Your task to perform on an android device: Go to sound settings Image 0: 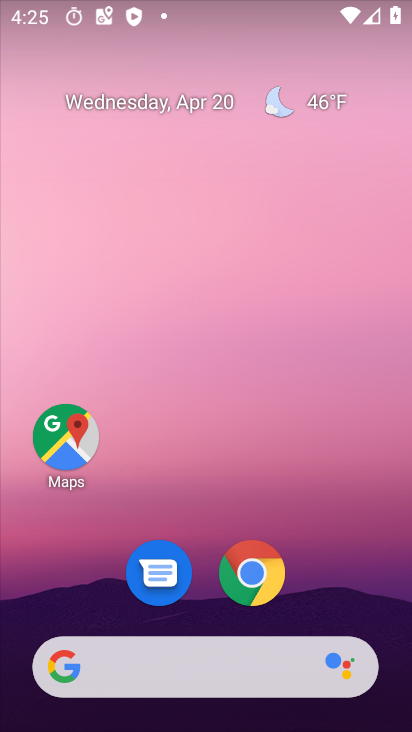
Step 0: drag from (369, 375) to (342, 193)
Your task to perform on an android device: Go to sound settings Image 1: 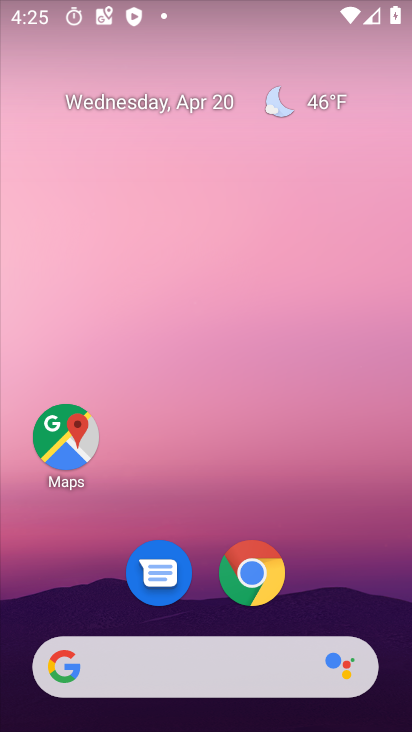
Step 1: click (322, 146)
Your task to perform on an android device: Go to sound settings Image 2: 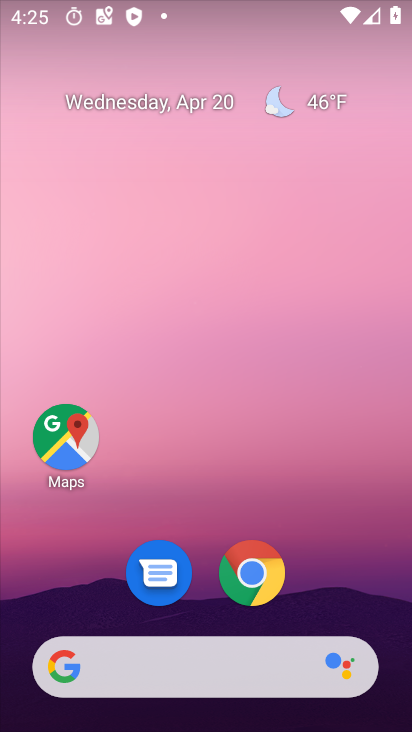
Step 2: click (294, 23)
Your task to perform on an android device: Go to sound settings Image 3: 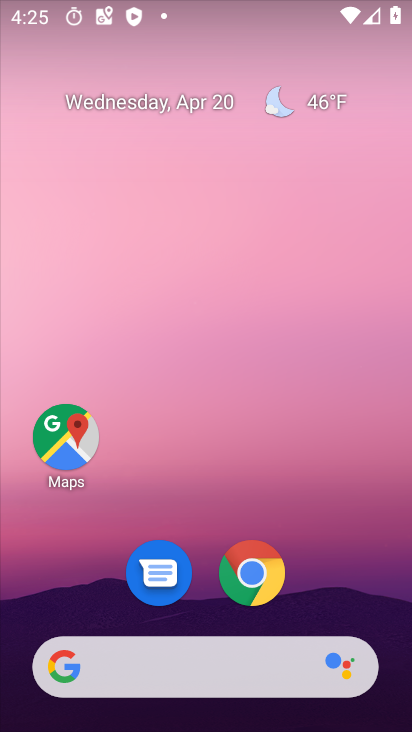
Step 3: drag from (342, 178) to (331, 132)
Your task to perform on an android device: Go to sound settings Image 4: 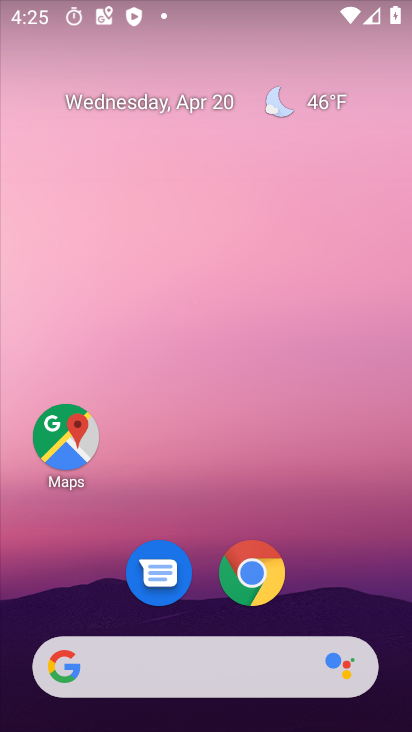
Step 4: drag from (385, 188) to (361, 62)
Your task to perform on an android device: Go to sound settings Image 5: 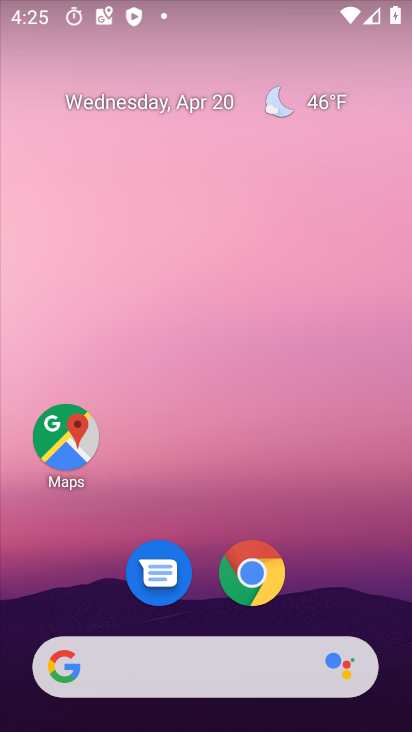
Step 5: drag from (313, 282) to (275, 131)
Your task to perform on an android device: Go to sound settings Image 6: 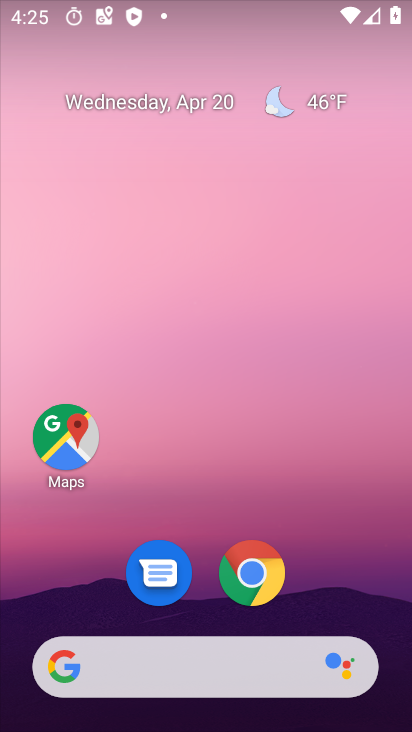
Step 6: drag from (317, 197) to (292, 99)
Your task to perform on an android device: Go to sound settings Image 7: 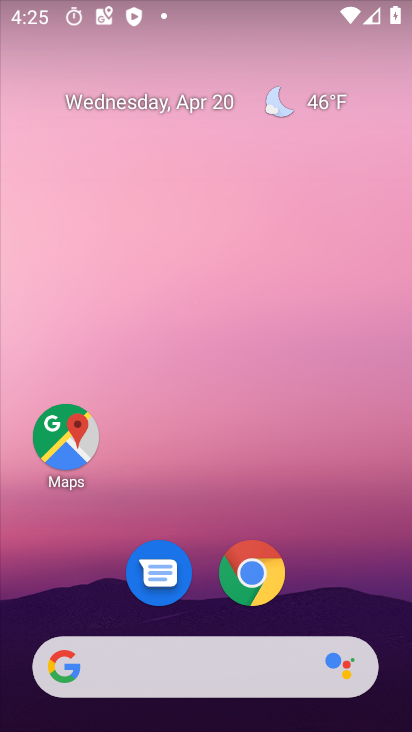
Step 7: drag from (356, 397) to (306, 209)
Your task to perform on an android device: Go to sound settings Image 8: 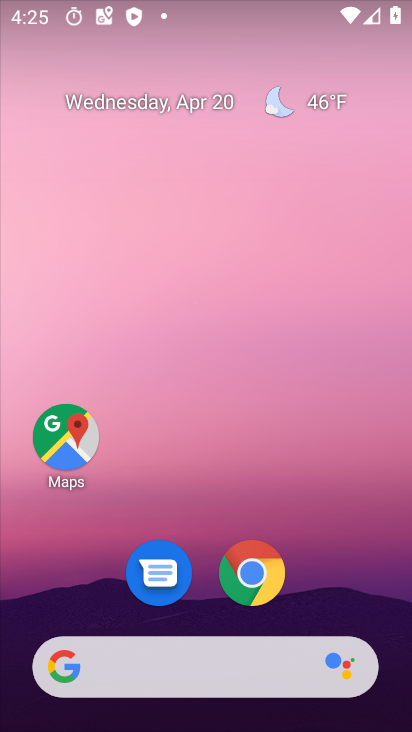
Step 8: drag from (334, 239) to (322, 157)
Your task to perform on an android device: Go to sound settings Image 9: 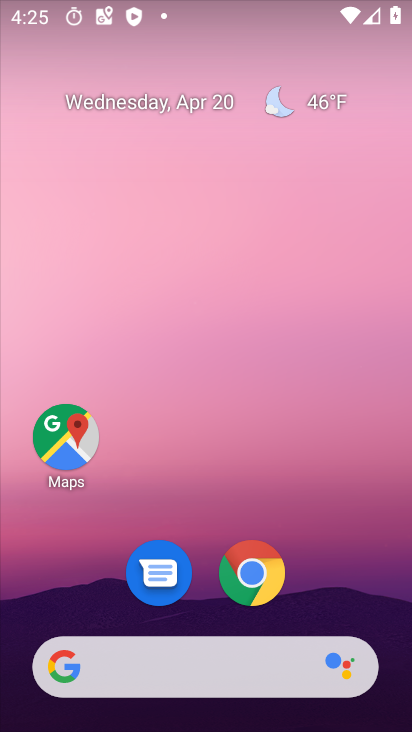
Step 9: drag from (399, 586) to (337, 42)
Your task to perform on an android device: Go to sound settings Image 10: 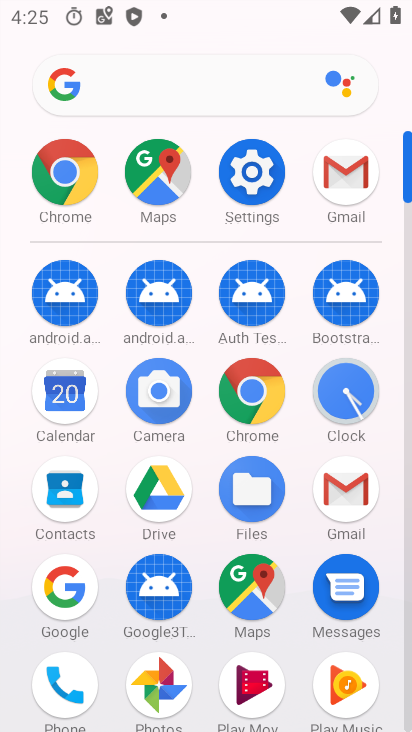
Step 10: click (254, 185)
Your task to perform on an android device: Go to sound settings Image 11: 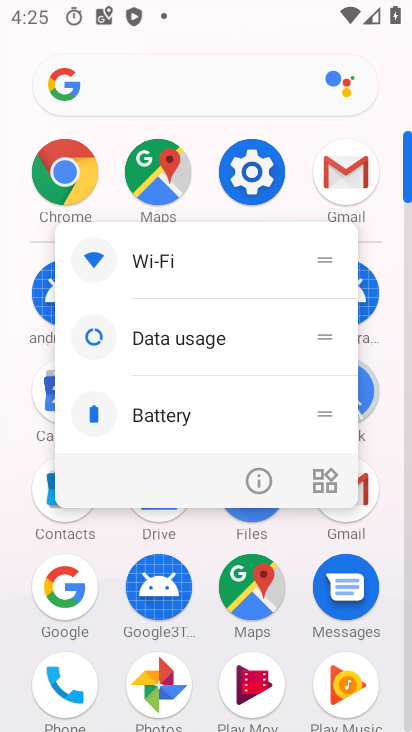
Step 11: click (245, 165)
Your task to perform on an android device: Go to sound settings Image 12: 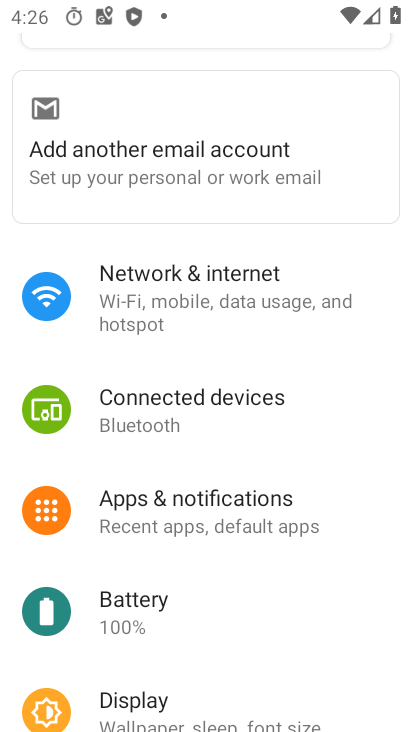
Step 12: drag from (326, 531) to (274, 249)
Your task to perform on an android device: Go to sound settings Image 13: 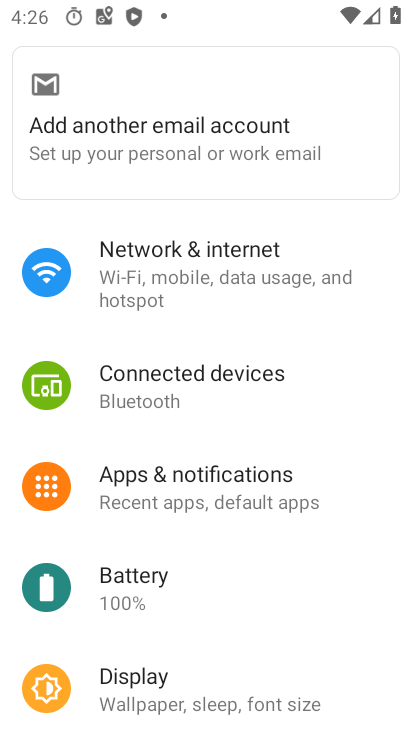
Step 13: drag from (332, 528) to (304, 355)
Your task to perform on an android device: Go to sound settings Image 14: 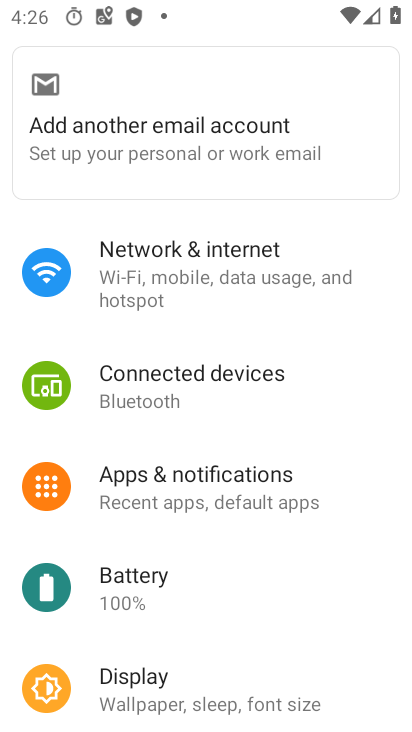
Step 14: drag from (332, 310) to (329, 255)
Your task to perform on an android device: Go to sound settings Image 15: 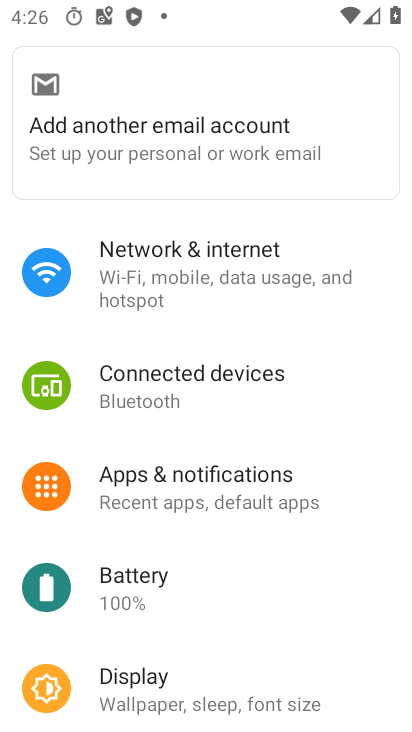
Step 15: drag from (377, 572) to (366, 317)
Your task to perform on an android device: Go to sound settings Image 16: 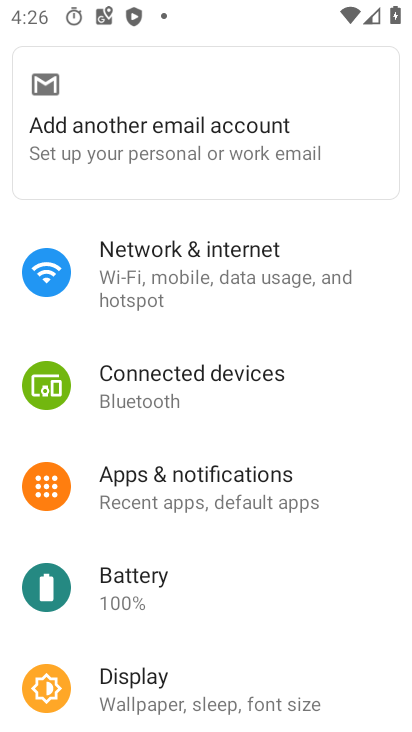
Step 16: drag from (340, 670) to (337, 291)
Your task to perform on an android device: Go to sound settings Image 17: 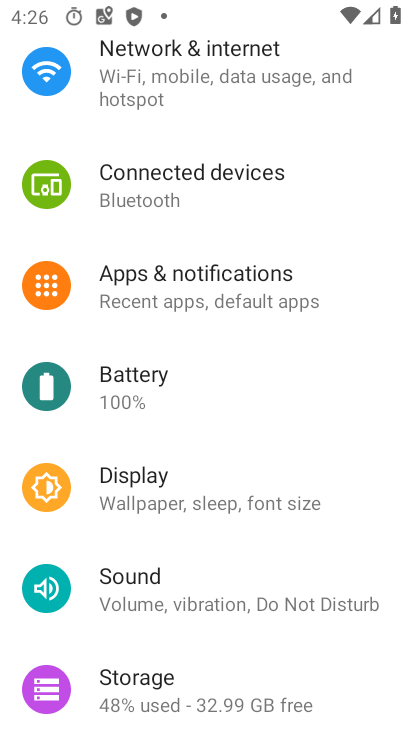
Step 17: drag from (369, 664) to (346, 192)
Your task to perform on an android device: Go to sound settings Image 18: 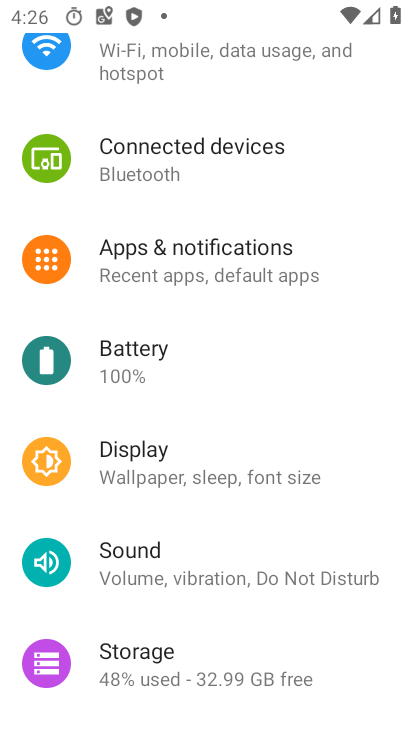
Step 18: drag from (360, 672) to (307, 249)
Your task to perform on an android device: Go to sound settings Image 19: 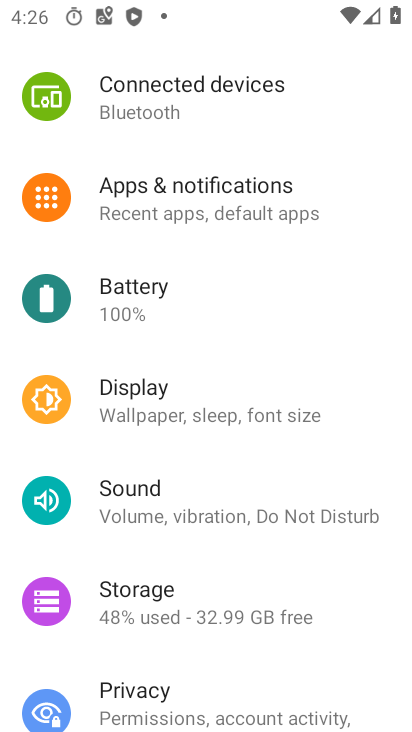
Step 19: click (96, 554)
Your task to perform on an android device: Go to sound settings Image 20: 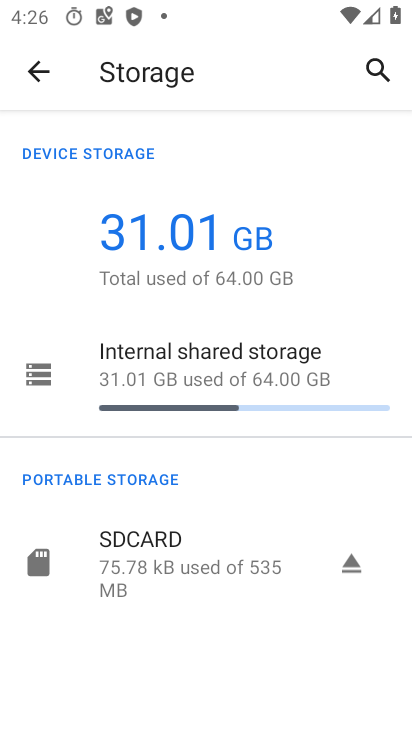
Step 20: click (111, 483)
Your task to perform on an android device: Go to sound settings Image 21: 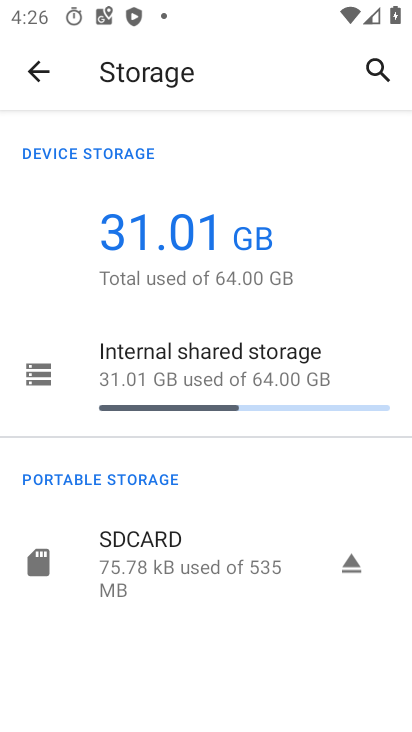
Step 21: press back button
Your task to perform on an android device: Go to sound settings Image 22: 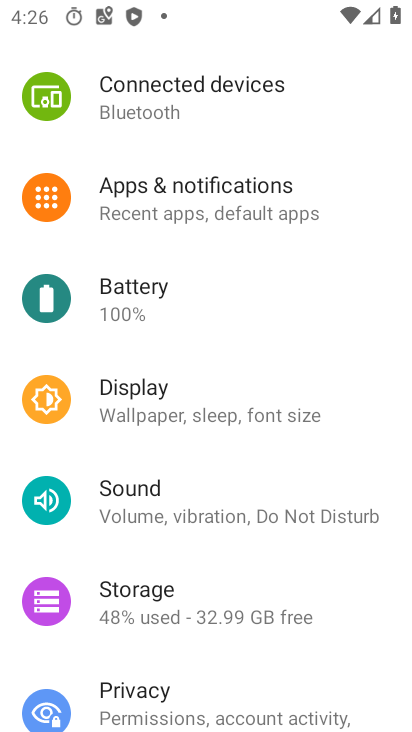
Step 22: click (110, 484)
Your task to perform on an android device: Go to sound settings Image 23: 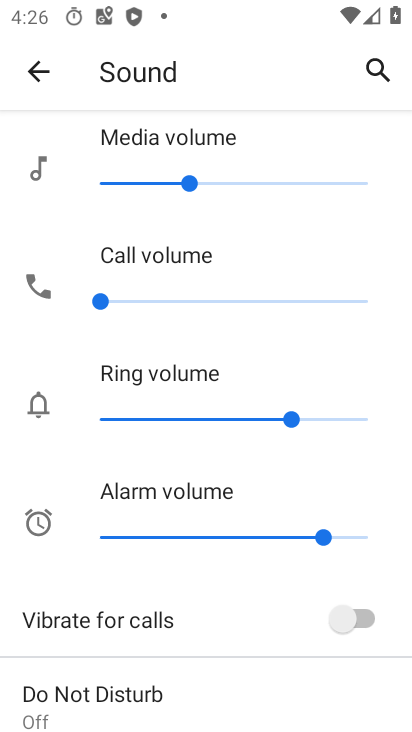
Step 23: task complete